Your task to perform on an android device: clear all cookies in the chrome app Image 0: 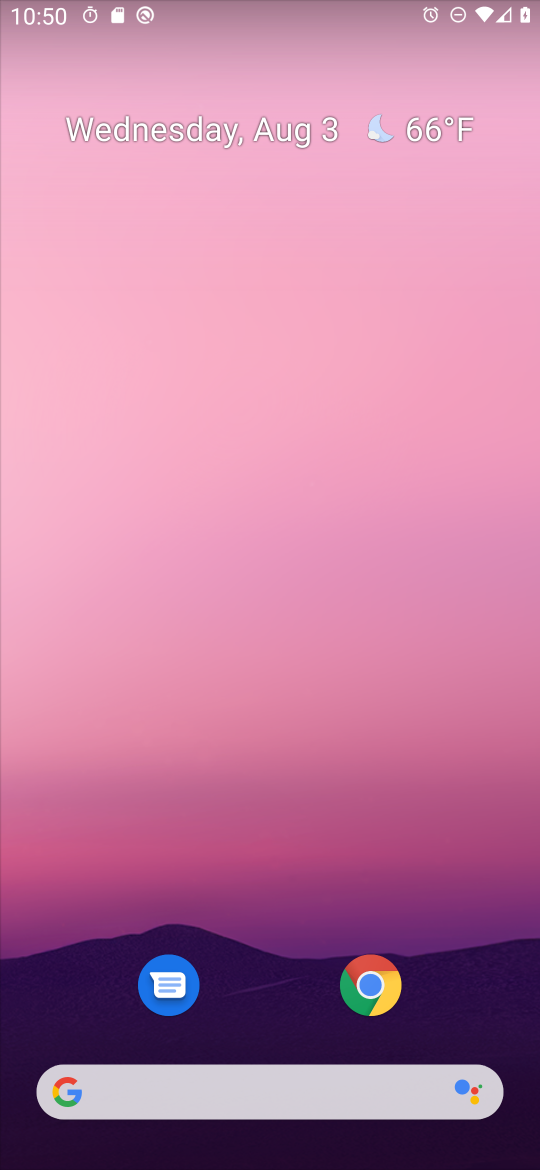
Step 0: click (399, 982)
Your task to perform on an android device: clear all cookies in the chrome app Image 1: 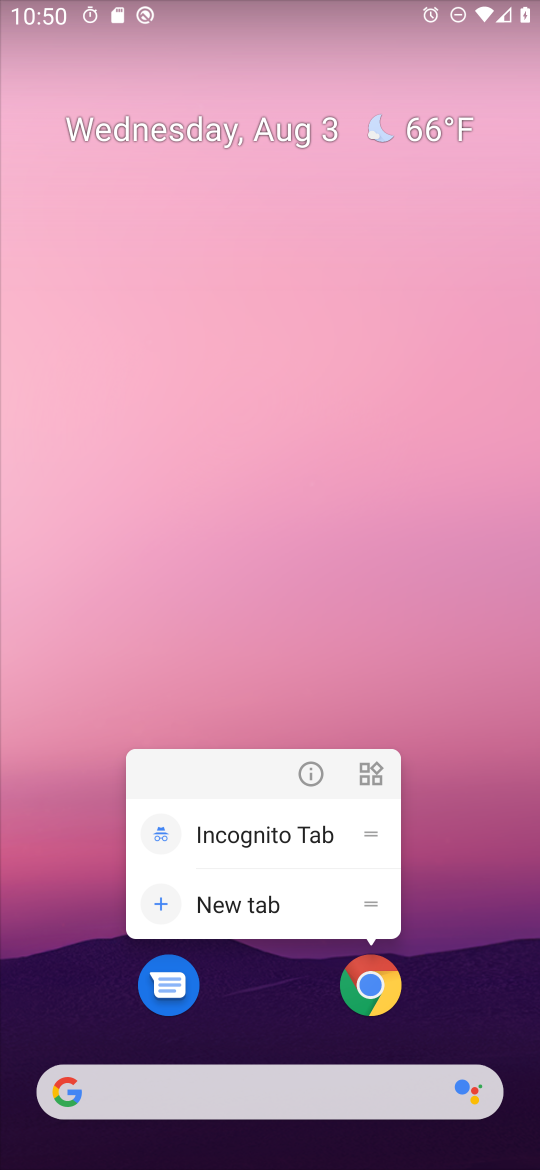
Step 1: click (399, 982)
Your task to perform on an android device: clear all cookies in the chrome app Image 2: 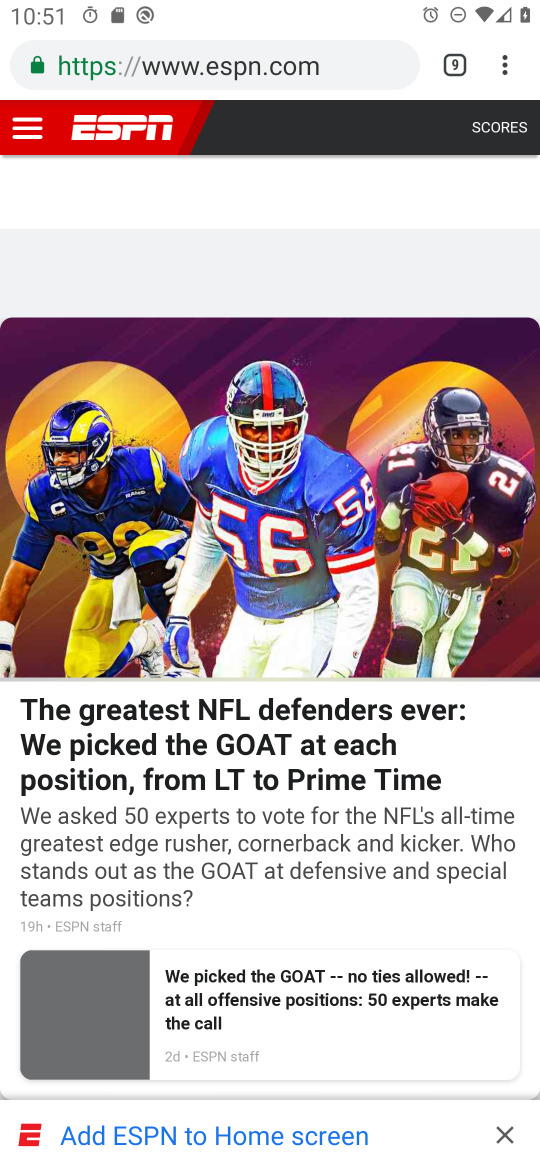
Step 2: click (513, 52)
Your task to perform on an android device: clear all cookies in the chrome app Image 3: 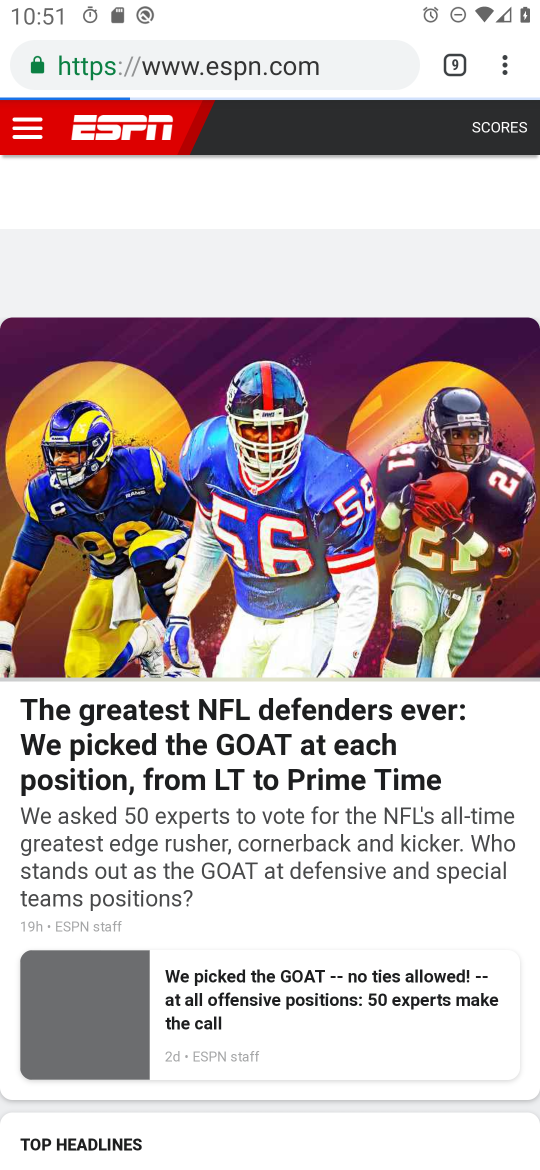
Step 3: click (503, 70)
Your task to perform on an android device: clear all cookies in the chrome app Image 4: 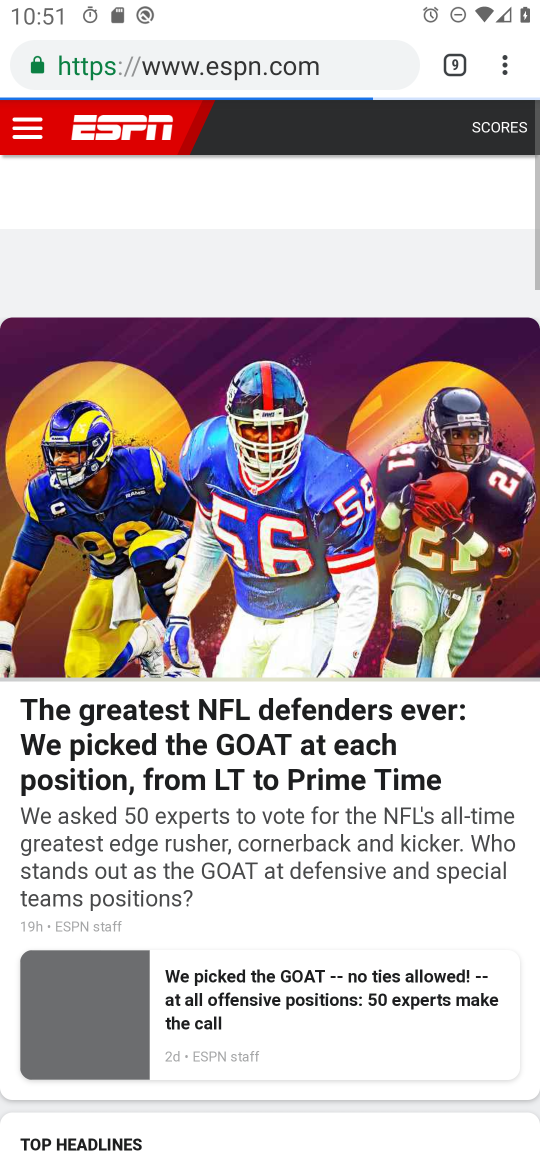
Step 4: drag from (501, 69) to (275, 353)
Your task to perform on an android device: clear all cookies in the chrome app Image 5: 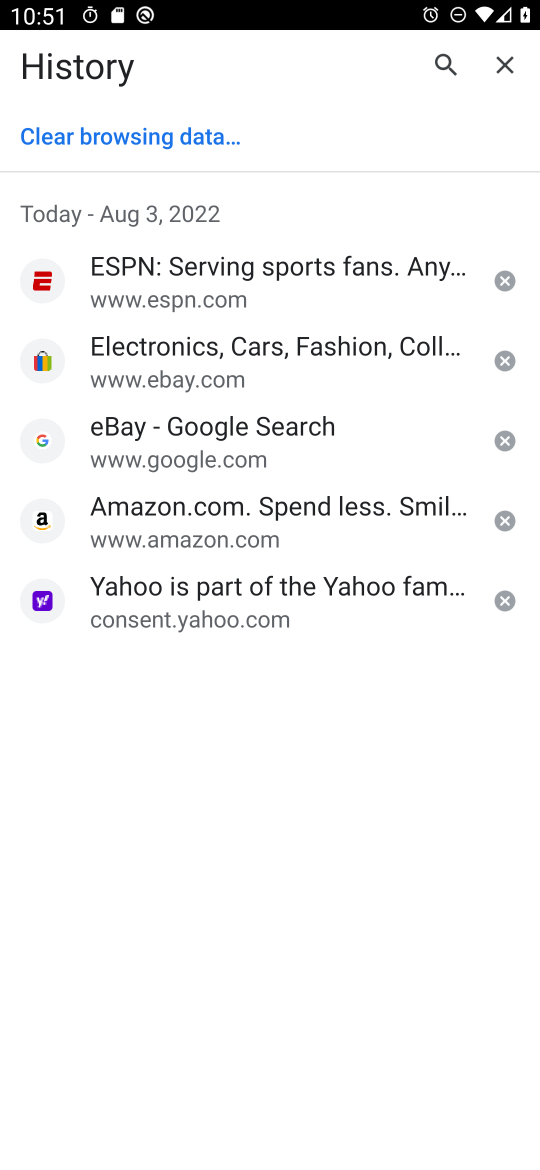
Step 5: click (76, 148)
Your task to perform on an android device: clear all cookies in the chrome app Image 6: 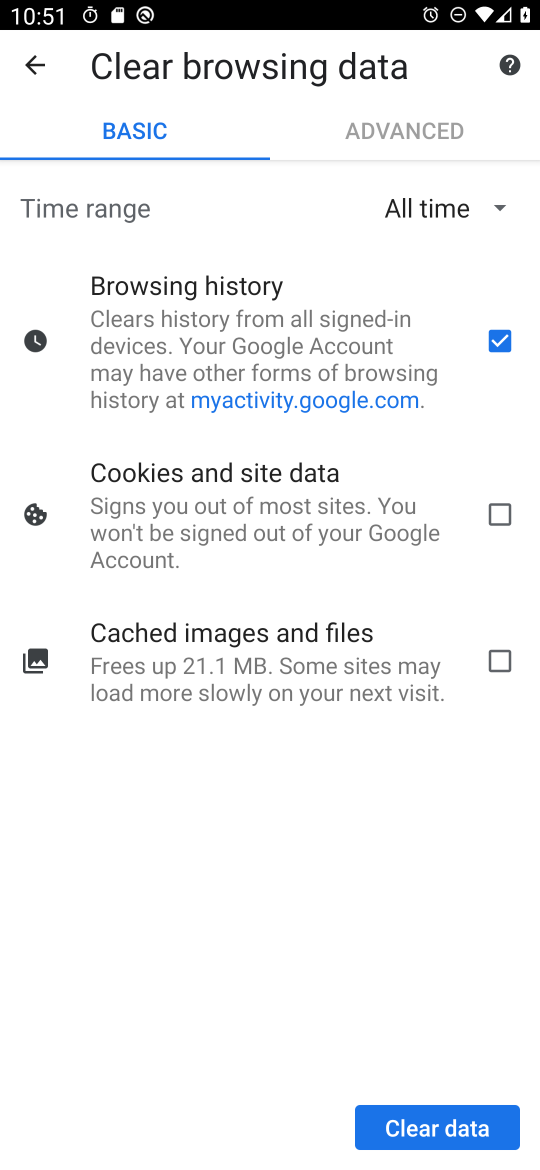
Step 6: click (512, 503)
Your task to perform on an android device: clear all cookies in the chrome app Image 7: 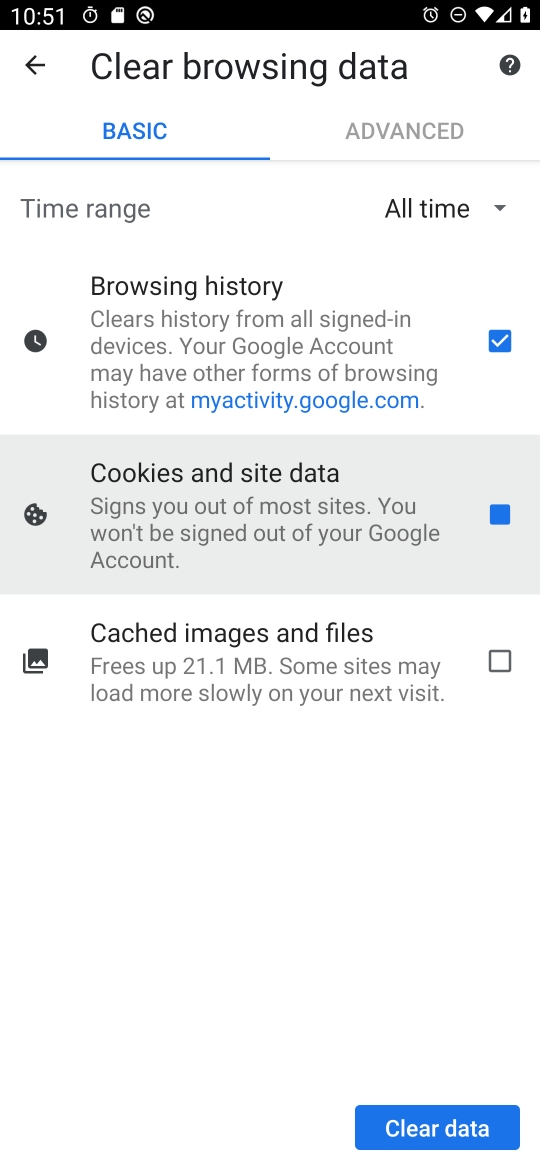
Step 7: click (510, 667)
Your task to perform on an android device: clear all cookies in the chrome app Image 8: 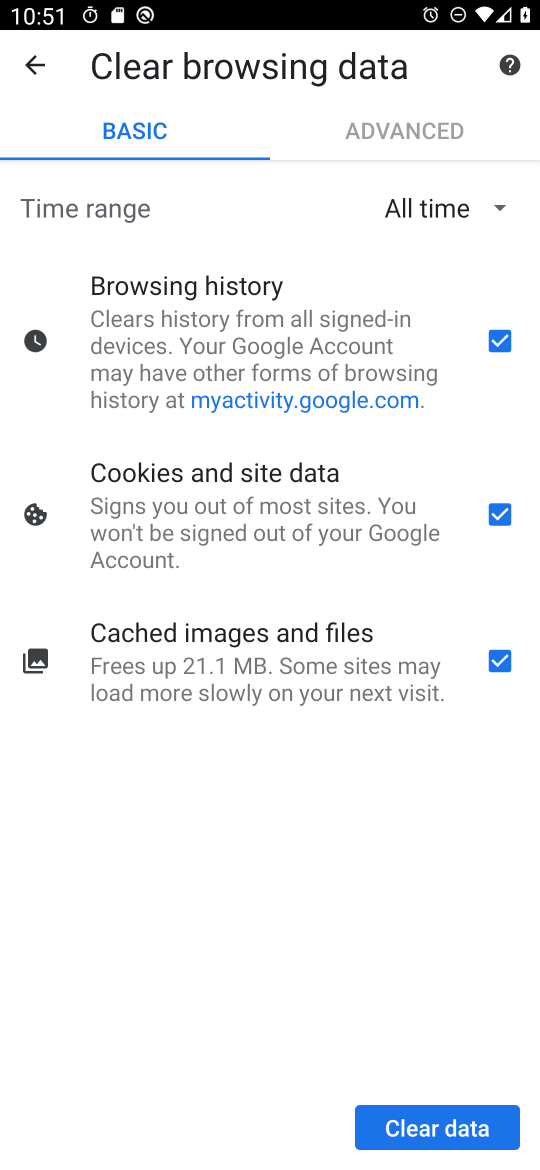
Step 8: click (467, 1107)
Your task to perform on an android device: clear all cookies in the chrome app Image 9: 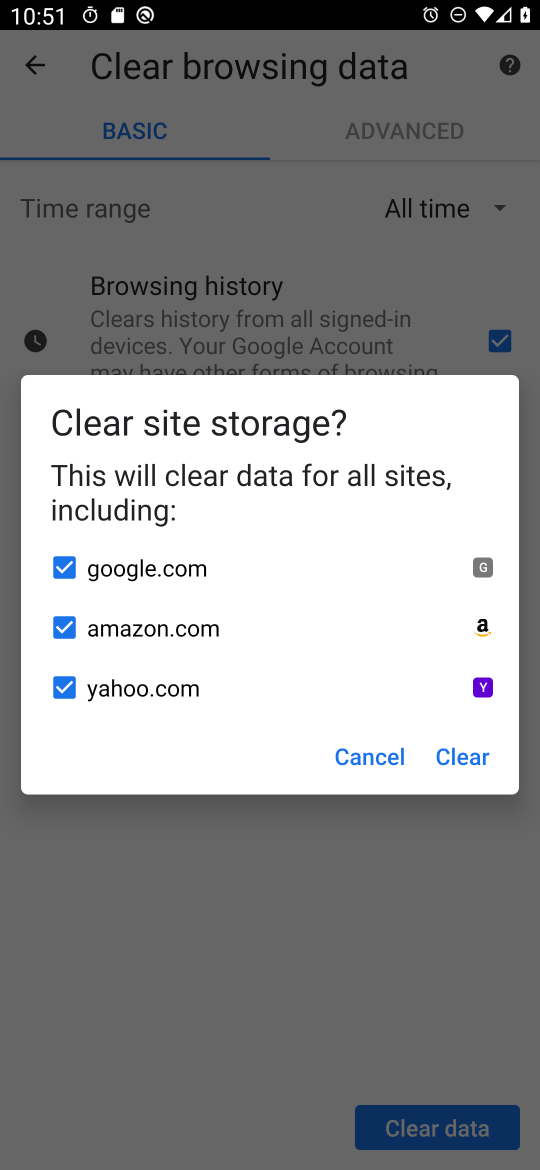
Step 9: click (462, 753)
Your task to perform on an android device: clear all cookies in the chrome app Image 10: 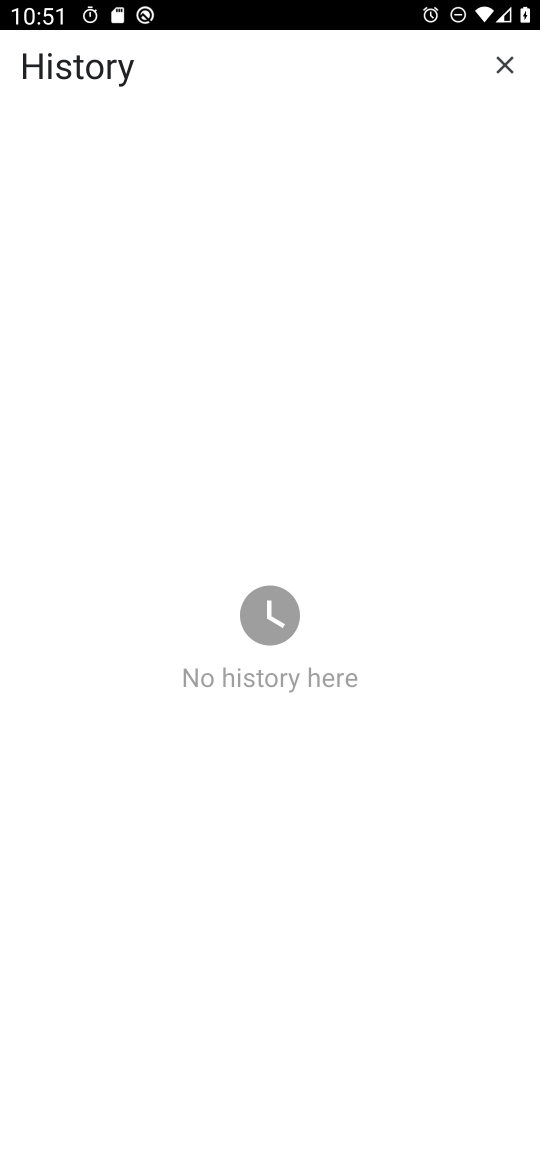
Step 10: task complete